Your task to perform on an android device: When is my next appointment? Image 0: 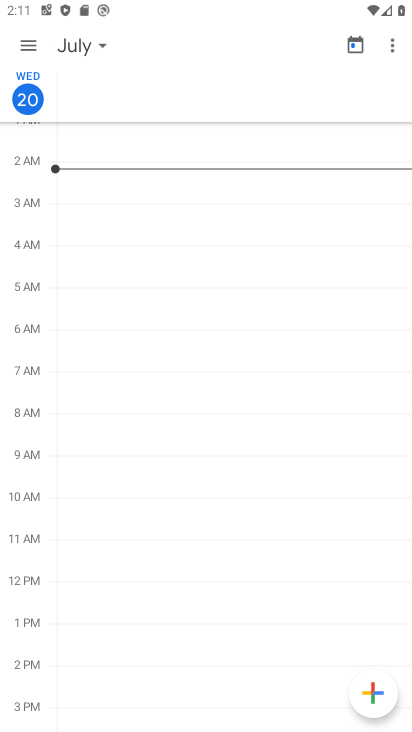
Step 0: press home button
Your task to perform on an android device: When is my next appointment? Image 1: 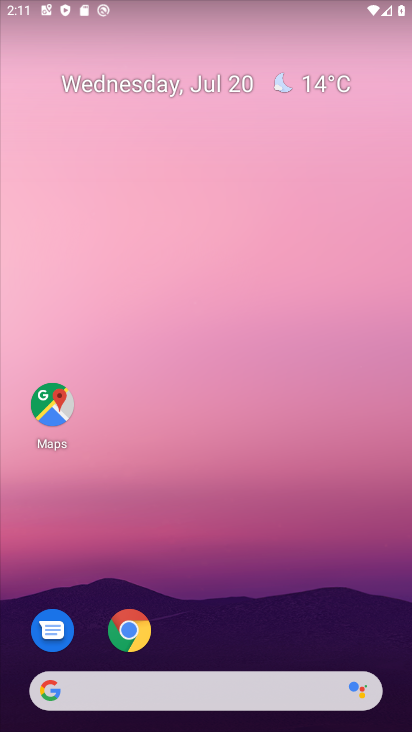
Step 1: drag from (282, 699) to (270, 54)
Your task to perform on an android device: When is my next appointment? Image 2: 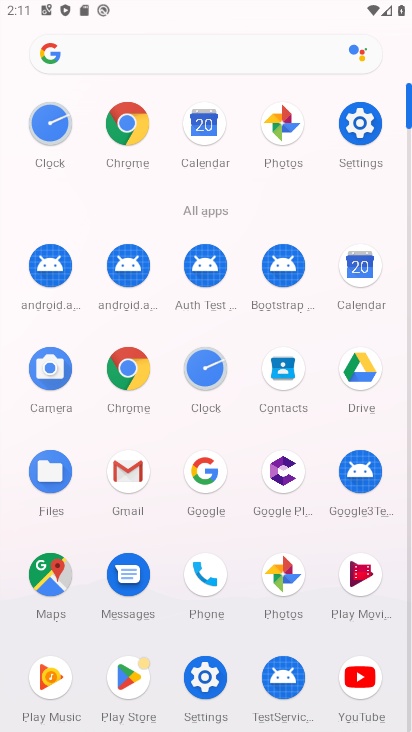
Step 2: click (358, 269)
Your task to perform on an android device: When is my next appointment? Image 3: 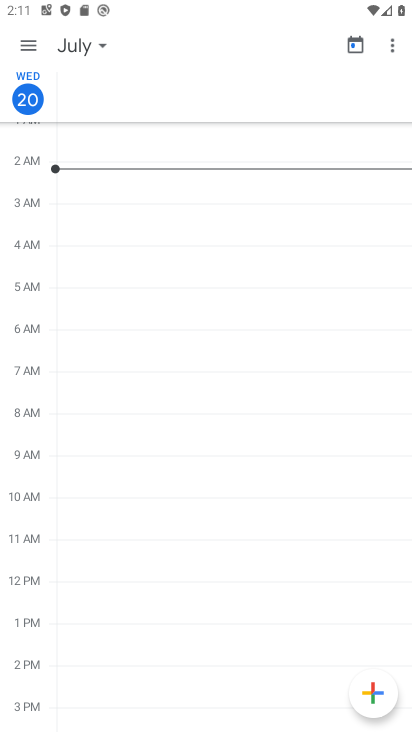
Step 3: click (33, 53)
Your task to perform on an android device: When is my next appointment? Image 4: 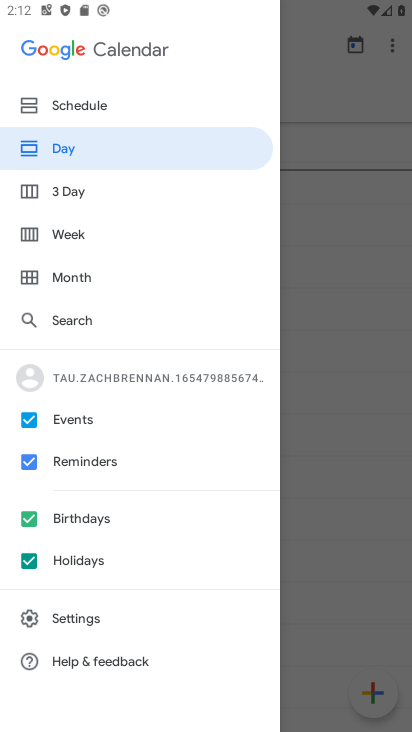
Step 4: click (82, 109)
Your task to perform on an android device: When is my next appointment? Image 5: 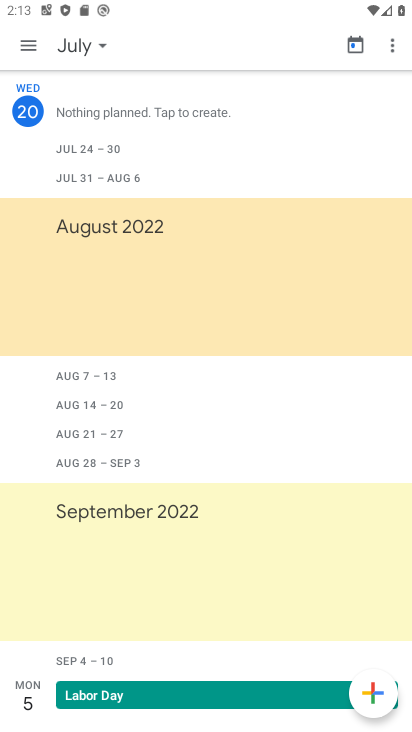
Step 5: task complete